Your task to perform on an android device: turn on data saver in the chrome app Image 0: 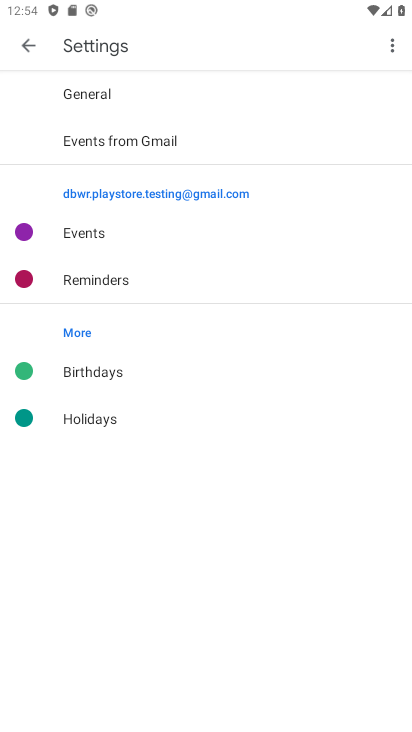
Step 0: click (19, 48)
Your task to perform on an android device: turn on data saver in the chrome app Image 1: 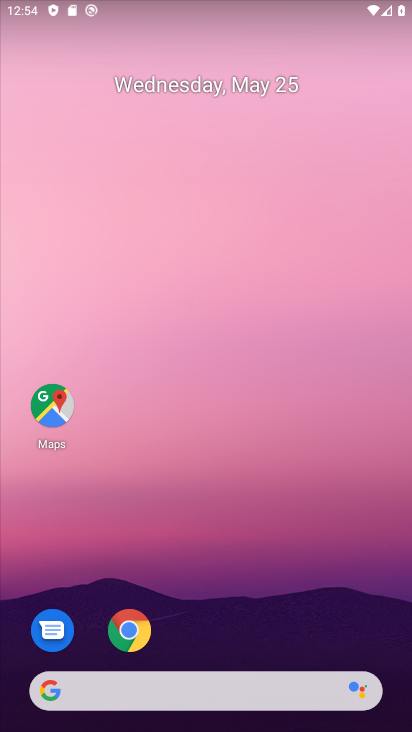
Step 1: drag from (272, 642) to (199, 219)
Your task to perform on an android device: turn on data saver in the chrome app Image 2: 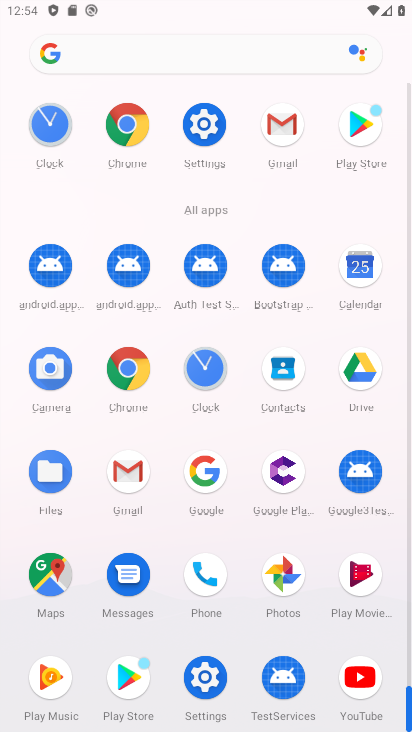
Step 2: click (130, 132)
Your task to perform on an android device: turn on data saver in the chrome app Image 3: 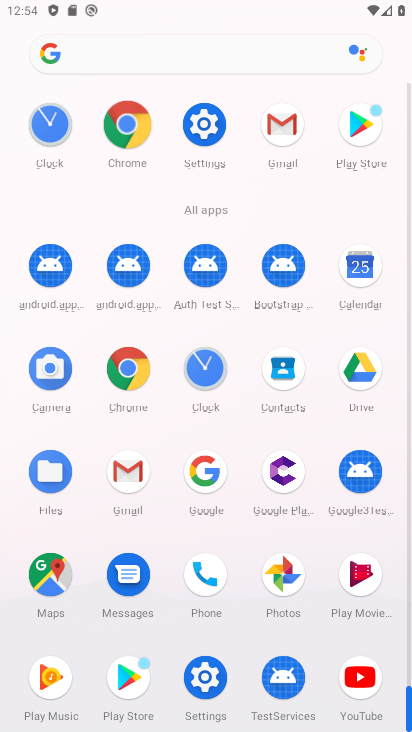
Step 3: click (135, 127)
Your task to perform on an android device: turn on data saver in the chrome app Image 4: 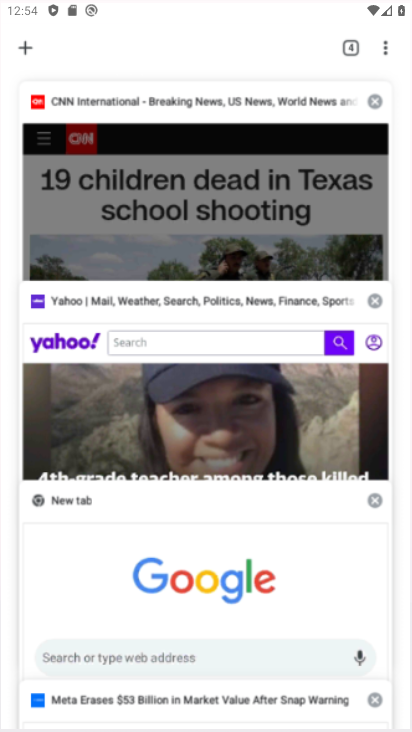
Step 4: click (135, 127)
Your task to perform on an android device: turn on data saver in the chrome app Image 5: 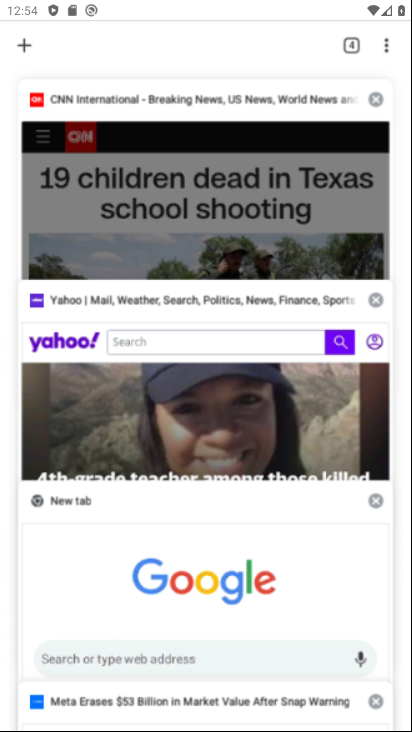
Step 5: click (135, 127)
Your task to perform on an android device: turn on data saver in the chrome app Image 6: 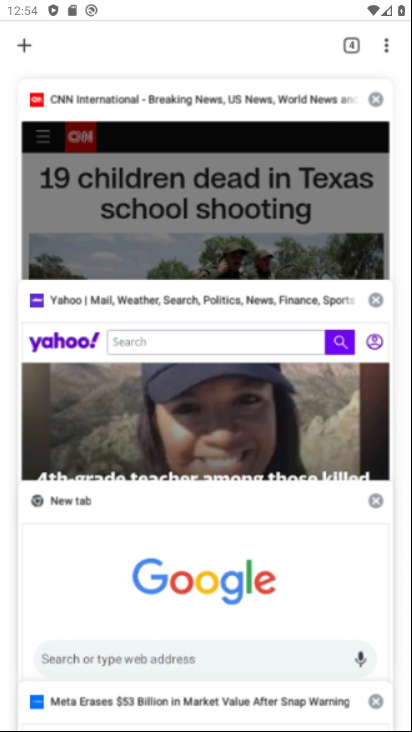
Step 6: click (136, 126)
Your task to perform on an android device: turn on data saver in the chrome app Image 7: 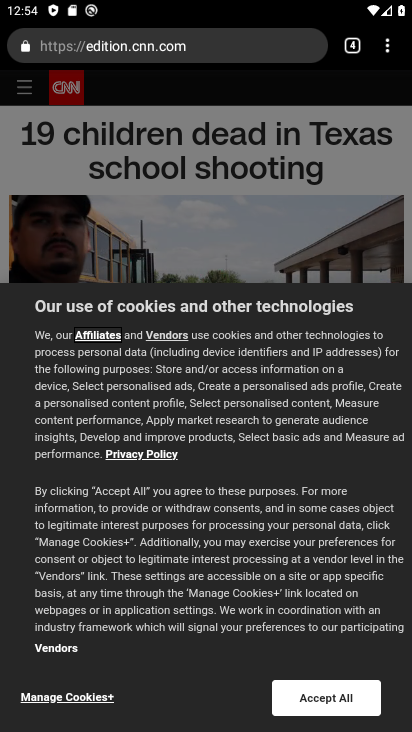
Step 7: drag from (390, 50) to (226, 590)
Your task to perform on an android device: turn on data saver in the chrome app Image 8: 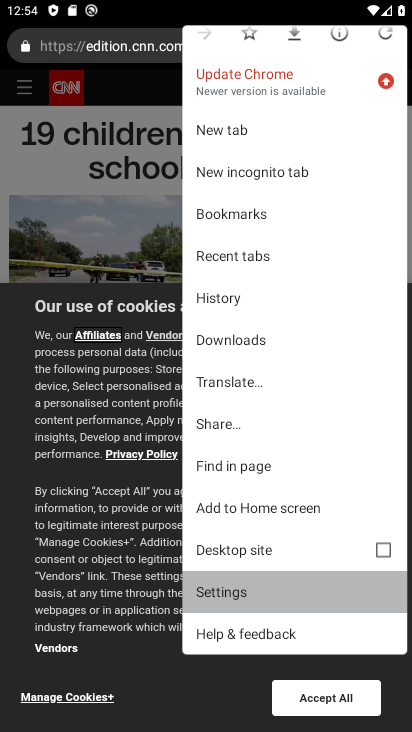
Step 8: click (229, 590)
Your task to perform on an android device: turn on data saver in the chrome app Image 9: 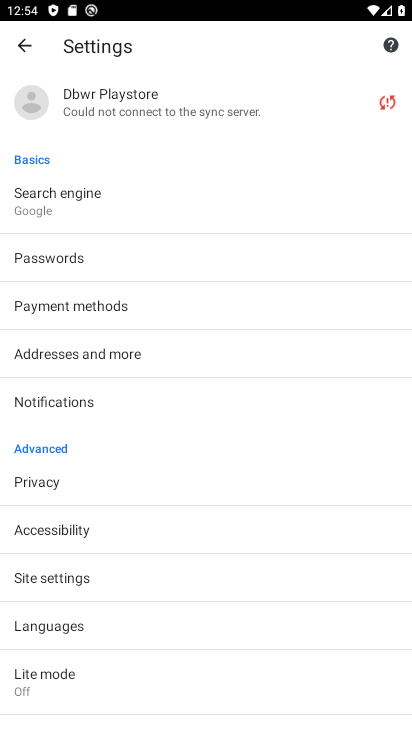
Step 9: drag from (162, 531) to (156, 125)
Your task to perform on an android device: turn on data saver in the chrome app Image 10: 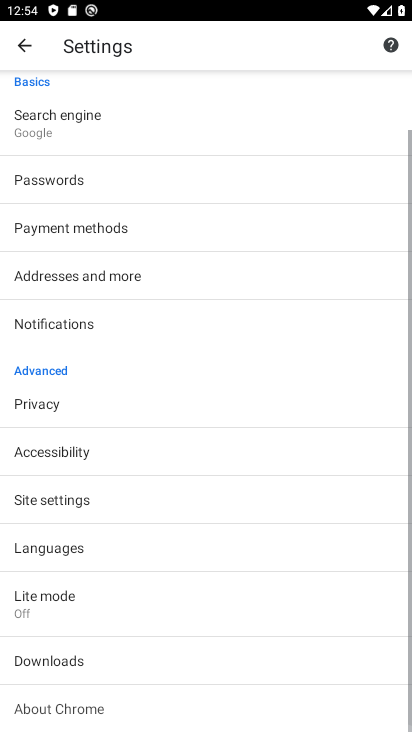
Step 10: drag from (197, 450) to (163, 191)
Your task to perform on an android device: turn on data saver in the chrome app Image 11: 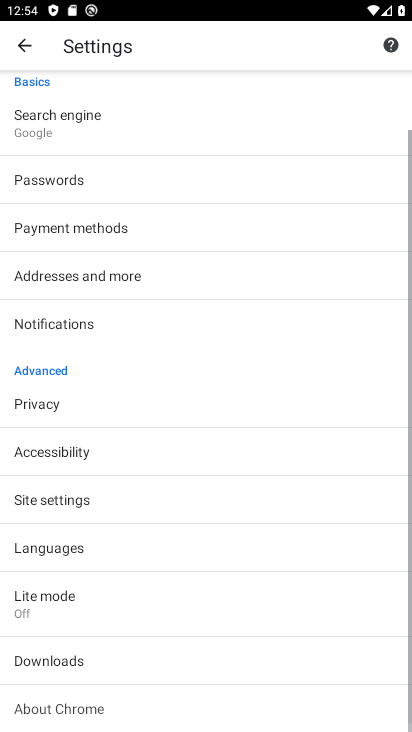
Step 11: drag from (168, 452) to (154, 171)
Your task to perform on an android device: turn on data saver in the chrome app Image 12: 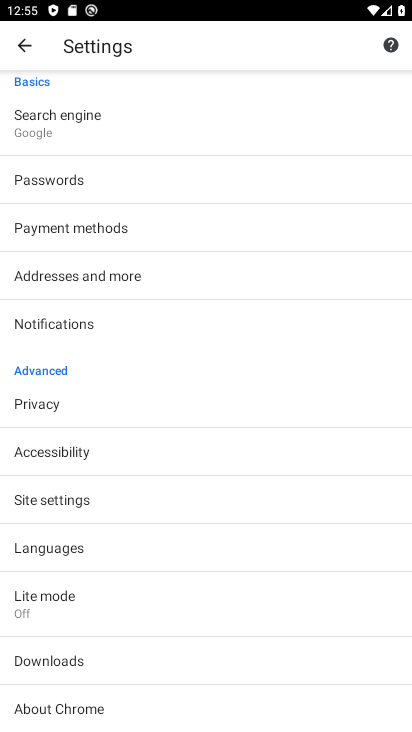
Step 12: click (45, 592)
Your task to perform on an android device: turn on data saver in the chrome app Image 13: 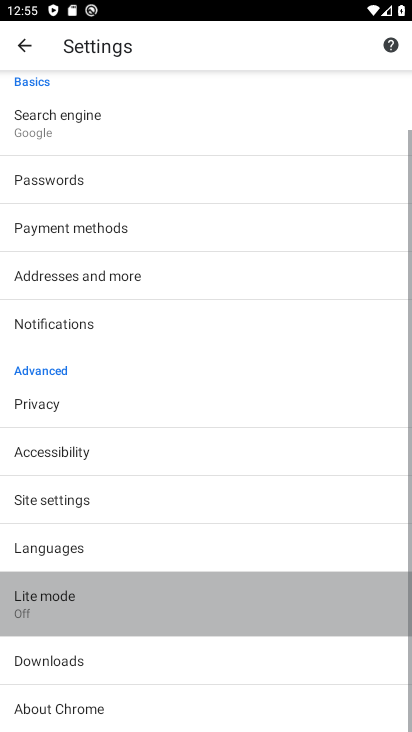
Step 13: click (46, 590)
Your task to perform on an android device: turn on data saver in the chrome app Image 14: 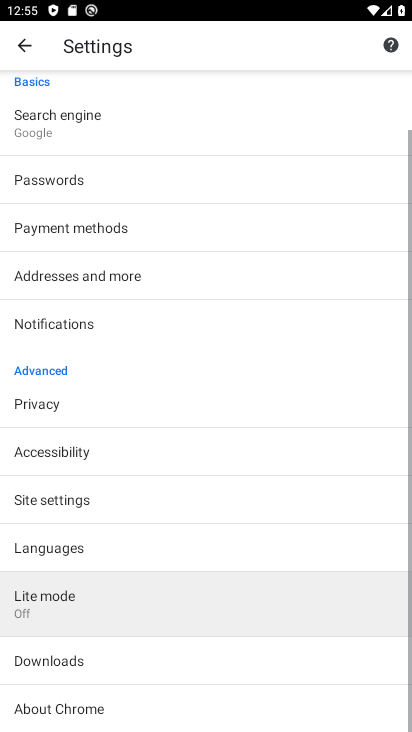
Step 14: click (46, 590)
Your task to perform on an android device: turn on data saver in the chrome app Image 15: 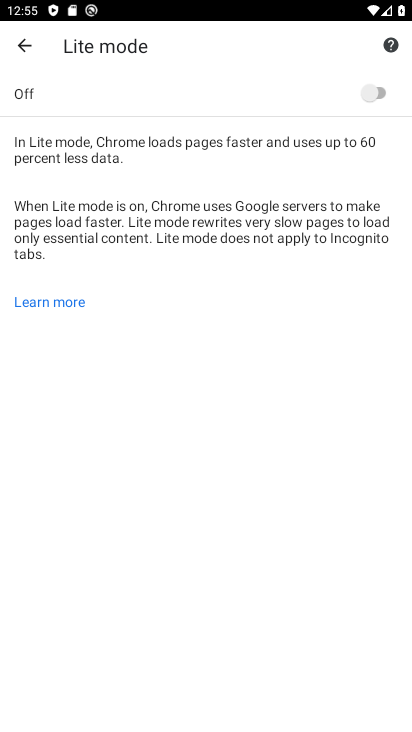
Step 15: click (46, 590)
Your task to perform on an android device: turn on data saver in the chrome app Image 16: 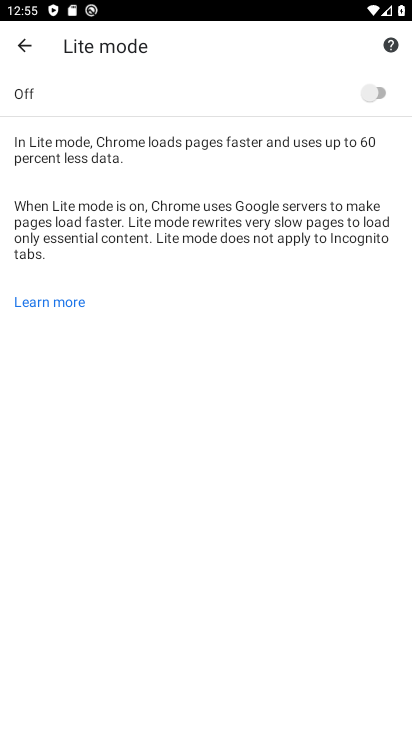
Step 16: click (365, 91)
Your task to perform on an android device: turn on data saver in the chrome app Image 17: 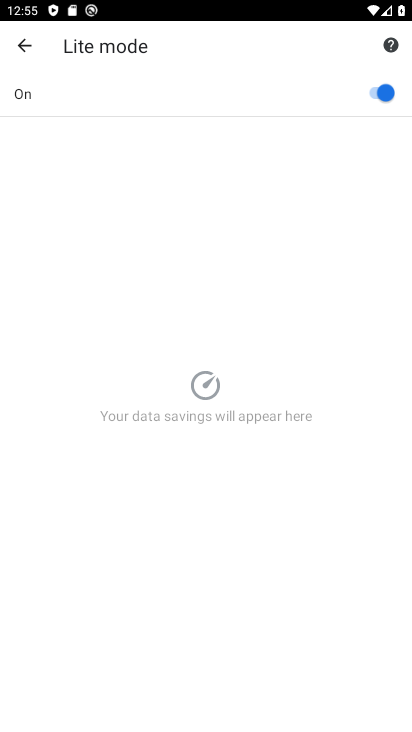
Step 17: task complete